Your task to perform on an android device: turn on javascript in the chrome app Image 0: 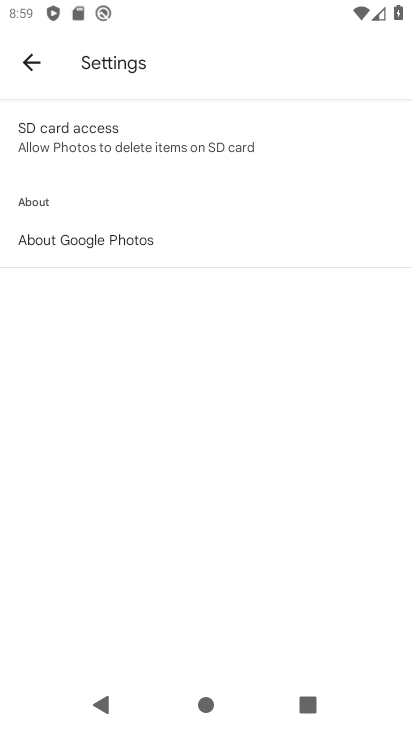
Step 0: press home button
Your task to perform on an android device: turn on javascript in the chrome app Image 1: 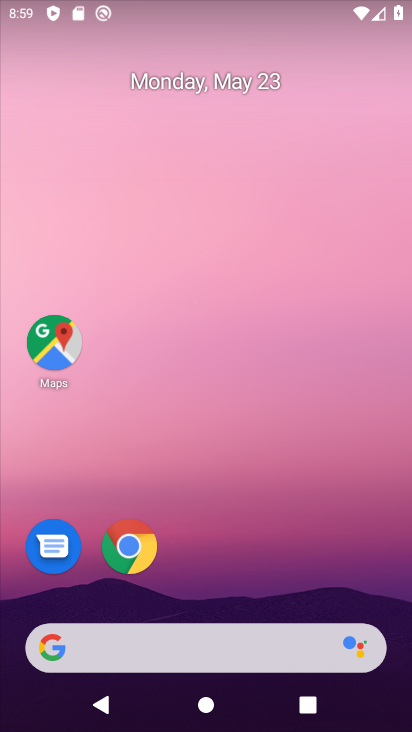
Step 1: drag from (297, 588) to (349, 125)
Your task to perform on an android device: turn on javascript in the chrome app Image 2: 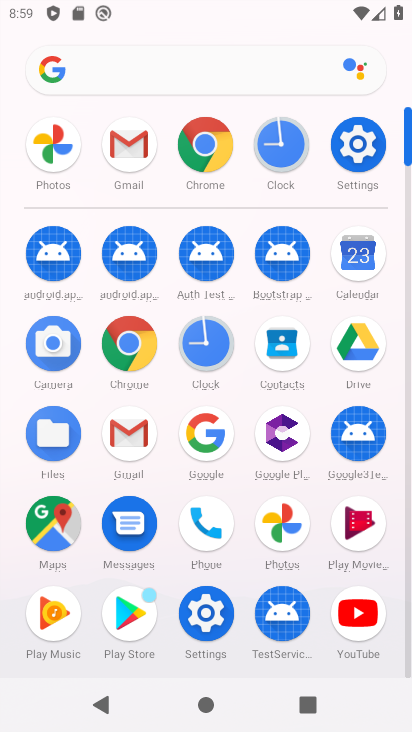
Step 2: click (207, 148)
Your task to perform on an android device: turn on javascript in the chrome app Image 3: 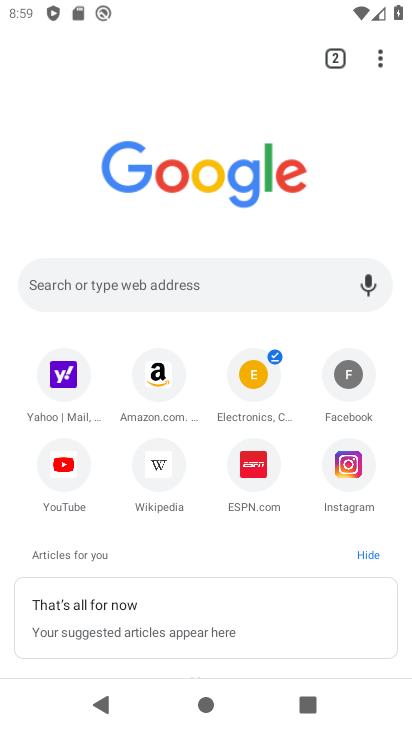
Step 3: click (388, 56)
Your task to perform on an android device: turn on javascript in the chrome app Image 4: 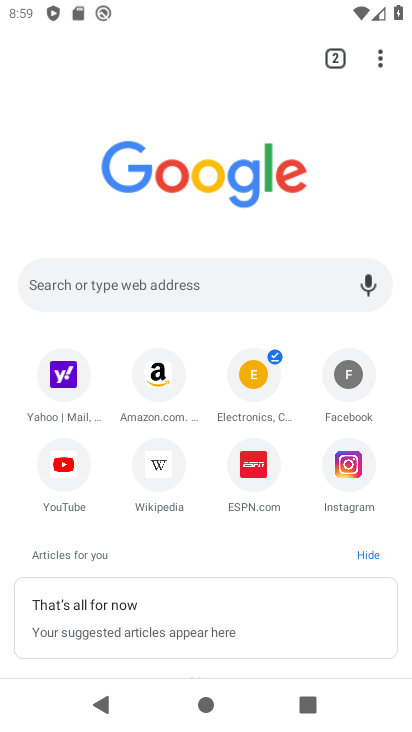
Step 4: drag from (379, 47) to (223, 507)
Your task to perform on an android device: turn on javascript in the chrome app Image 5: 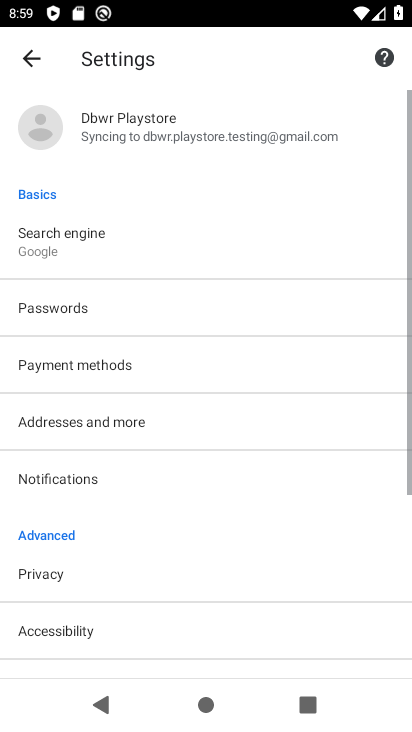
Step 5: drag from (220, 506) to (306, 247)
Your task to perform on an android device: turn on javascript in the chrome app Image 6: 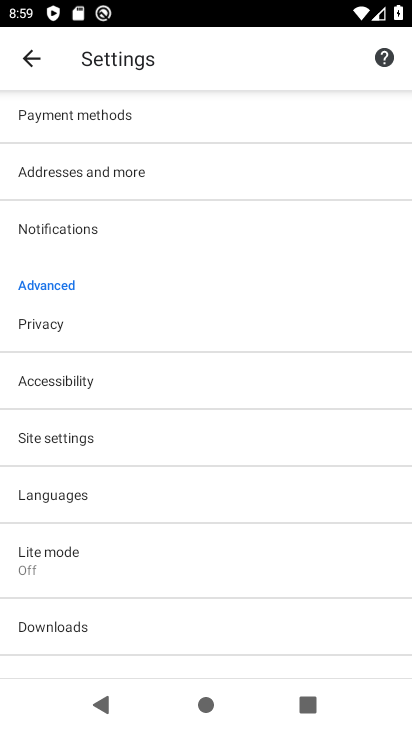
Step 6: click (136, 429)
Your task to perform on an android device: turn on javascript in the chrome app Image 7: 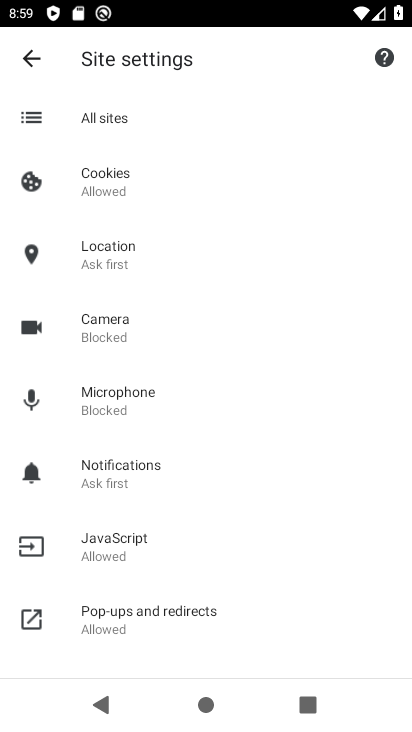
Step 7: click (117, 467)
Your task to perform on an android device: turn on javascript in the chrome app Image 8: 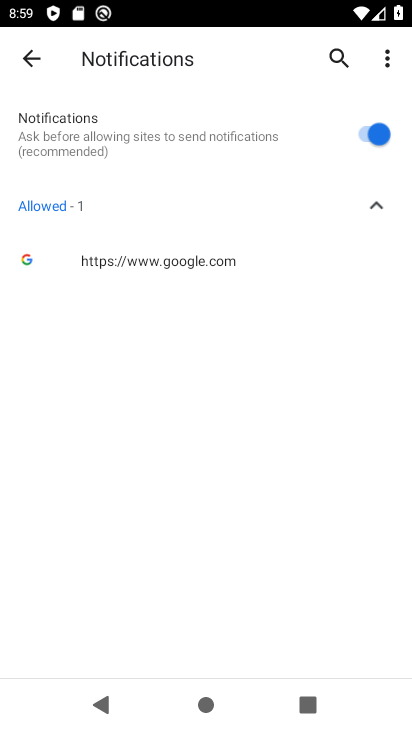
Step 8: click (27, 55)
Your task to perform on an android device: turn on javascript in the chrome app Image 9: 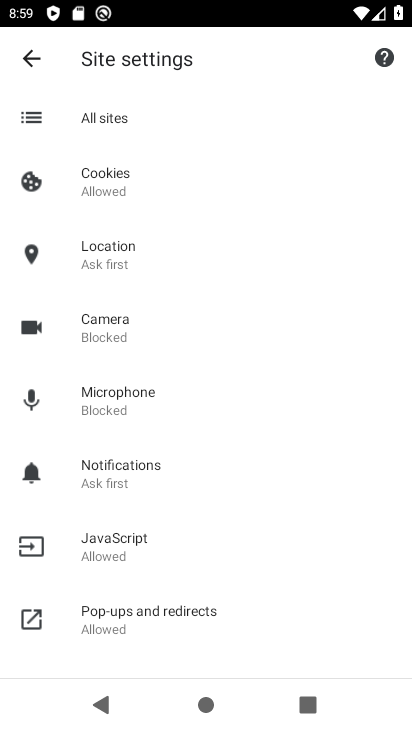
Step 9: click (105, 563)
Your task to perform on an android device: turn on javascript in the chrome app Image 10: 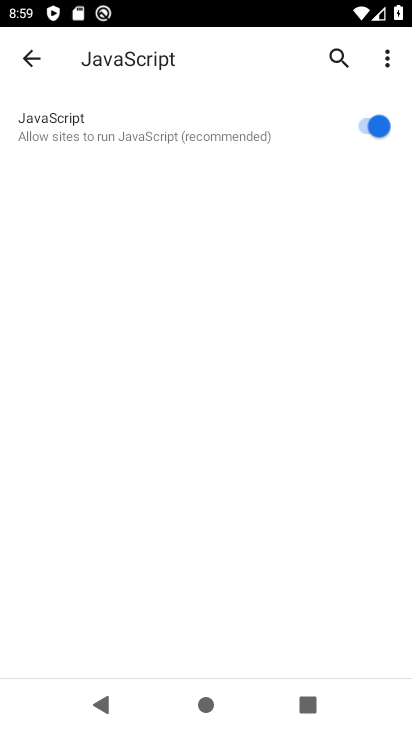
Step 10: task complete